Your task to perform on an android device: check android version Image 0: 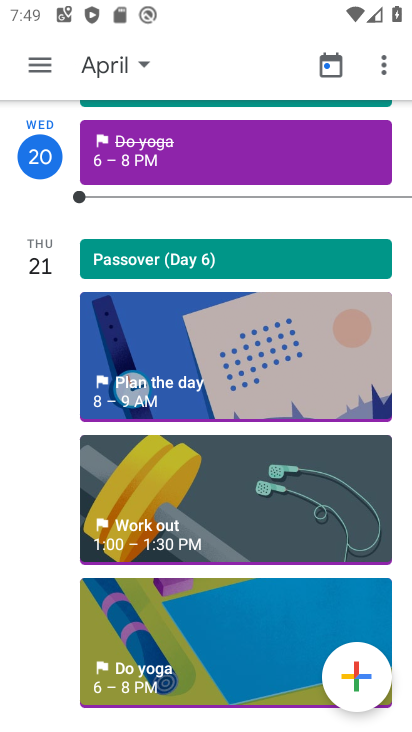
Step 0: press home button
Your task to perform on an android device: check android version Image 1: 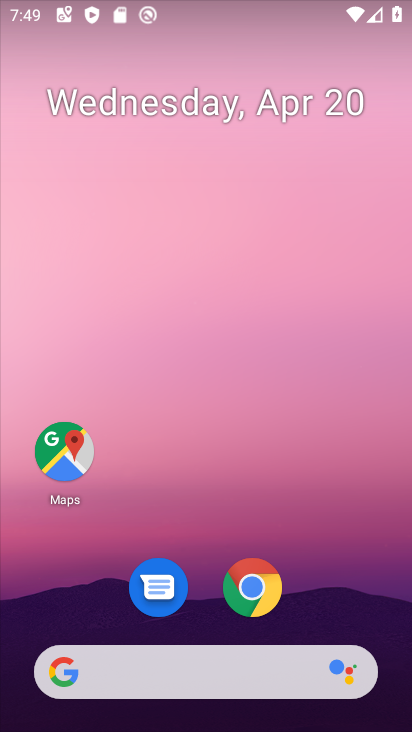
Step 1: drag from (326, 607) to (347, 122)
Your task to perform on an android device: check android version Image 2: 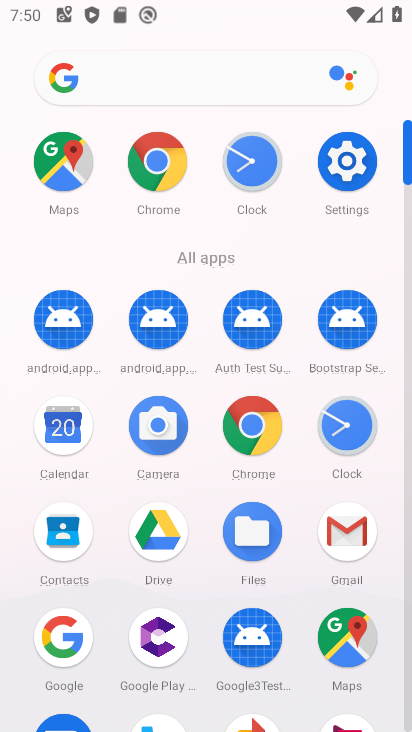
Step 2: click (335, 183)
Your task to perform on an android device: check android version Image 3: 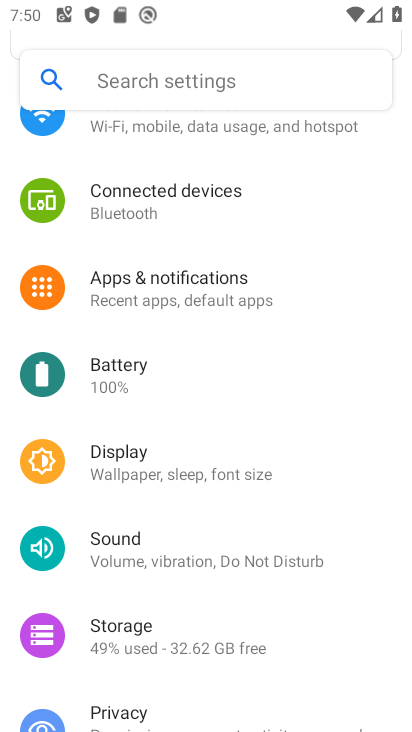
Step 3: drag from (386, 239) to (366, 472)
Your task to perform on an android device: check android version Image 4: 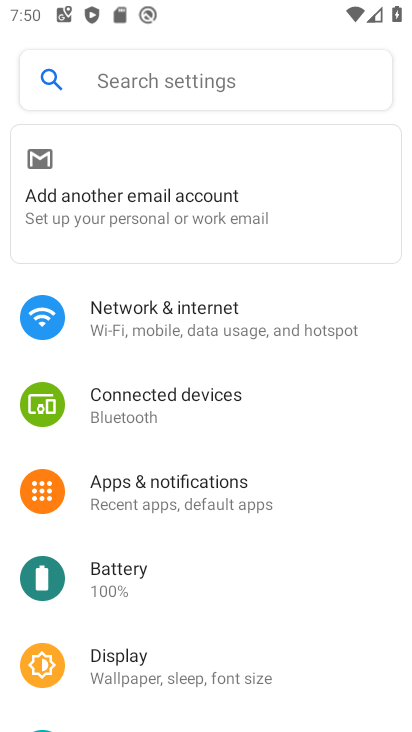
Step 4: drag from (380, 294) to (371, 501)
Your task to perform on an android device: check android version Image 5: 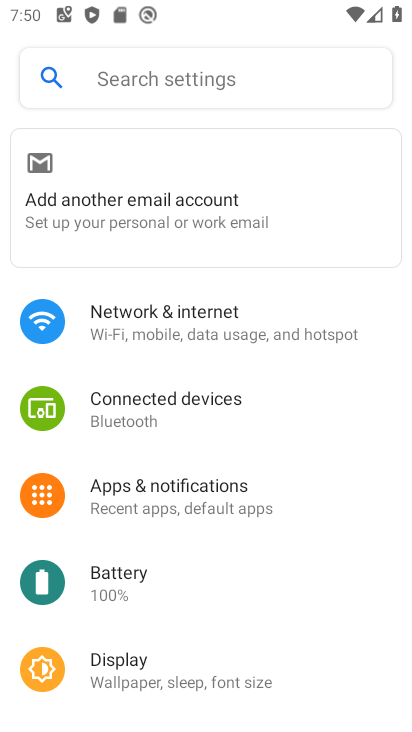
Step 5: drag from (357, 546) to (371, 347)
Your task to perform on an android device: check android version Image 6: 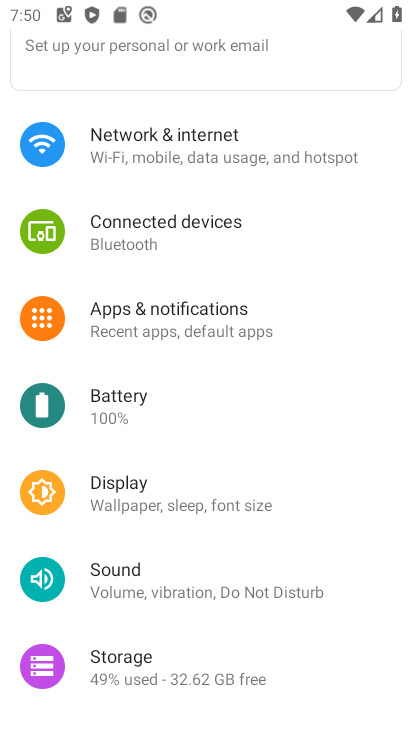
Step 6: drag from (357, 601) to (355, 384)
Your task to perform on an android device: check android version Image 7: 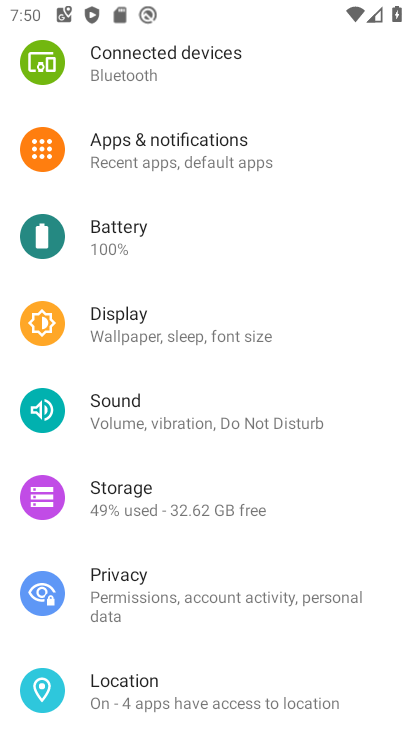
Step 7: drag from (370, 629) to (378, 390)
Your task to perform on an android device: check android version Image 8: 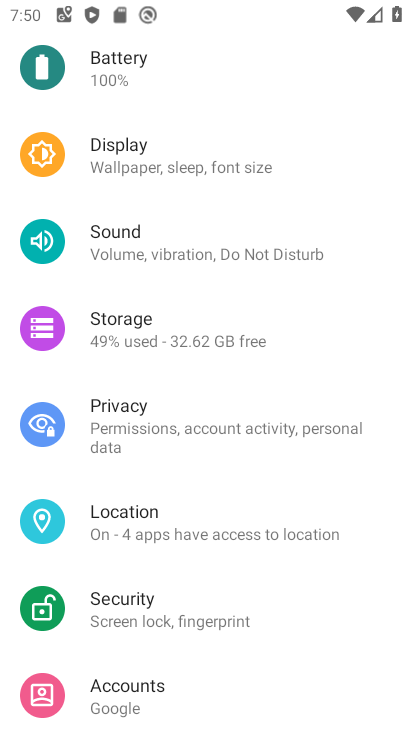
Step 8: drag from (367, 612) to (374, 391)
Your task to perform on an android device: check android version Image 9: 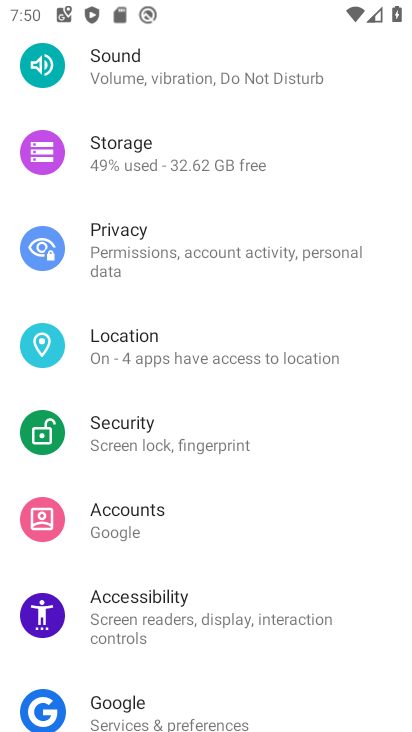
Step 9: drag from (366, 633) to (370, 379)
Your task to perform on an android device: check android version Image 10: 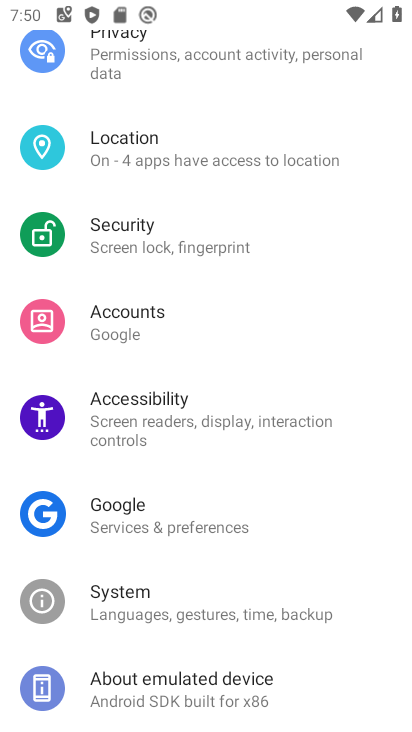
Step 10: drag from (348, 619) to (358, 392)
Your task to perform on an android device: check android version Image 11: 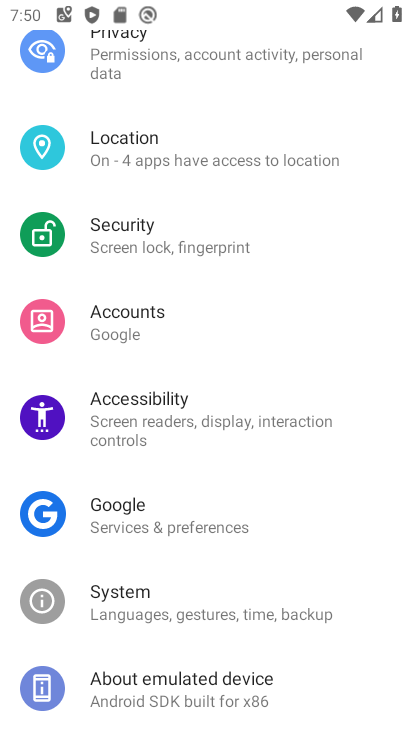
Step 11: click (189, 618)
Your task to perform on an android device: check android version Image 12: 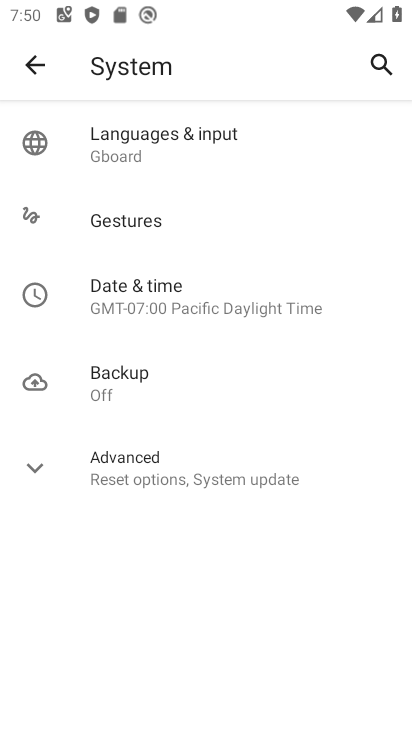
Step 12: click (201, 470)
Your task to perform on an android device: check android version Image 13: 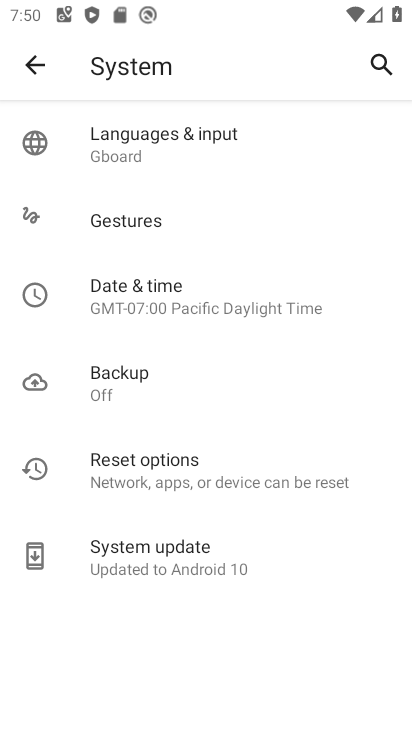
Step 13: click (133, 568)
Your task to perform on an android device: check android version Image 14: 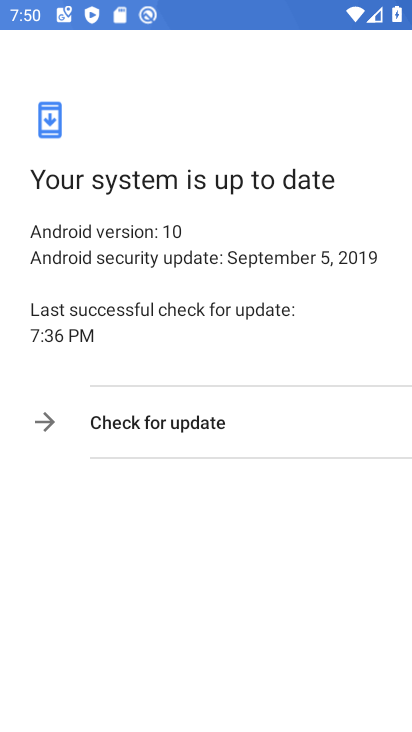
Step 14: task complete